Your task to perform on an android device: check data usage Image 0: 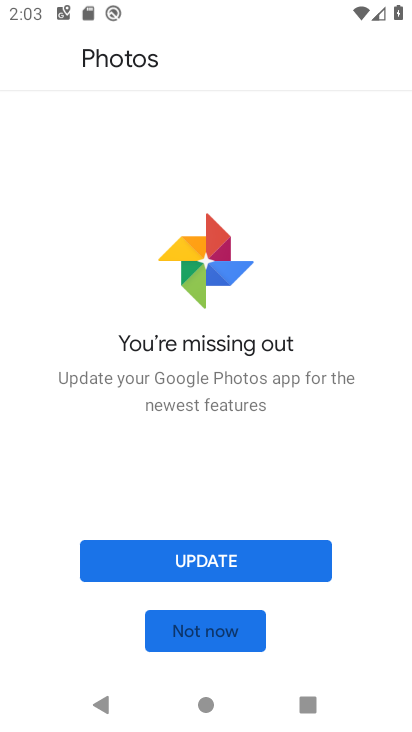
Step 0: press home button
Your task to perform on an android device: check data usage Image 1: 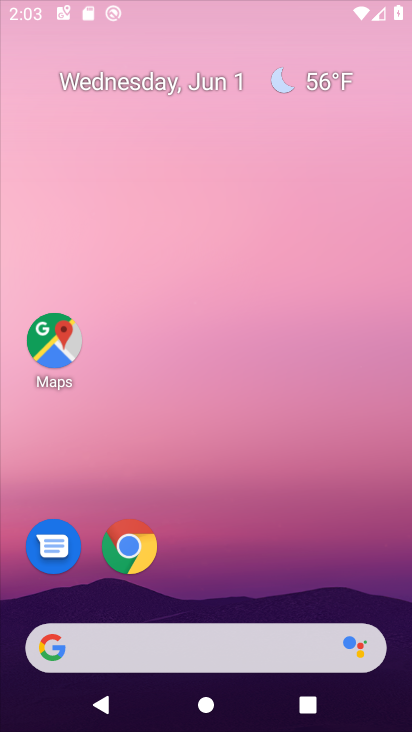
Step 1: drag from (182, 677) to (235, 126)
Your task to perform on an android device: check data usage Image 2: 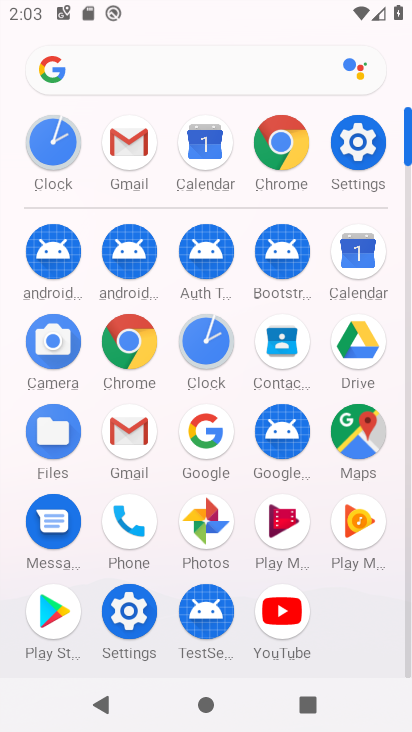
Step 2: click (364, 157)
Your task to perform on an android device: check data usage Image 3: 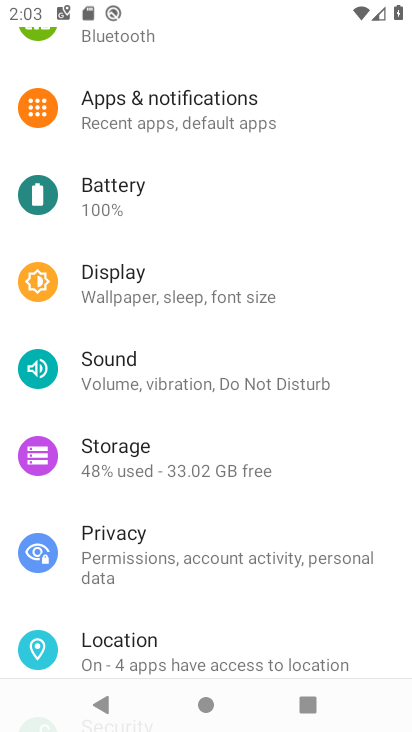
Step 3: drag from (253, 71) to (269, 492)
Your task to perform on an android device: check data usage Image 4: 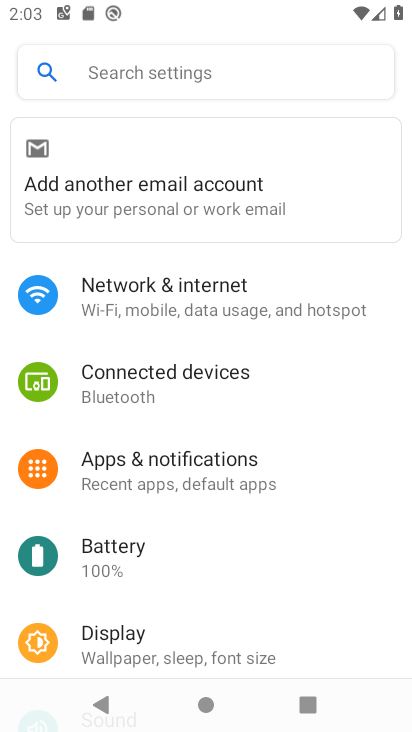
Step 4: click (165, 318)
Your task to perform on an android device: check data usage Image 5: 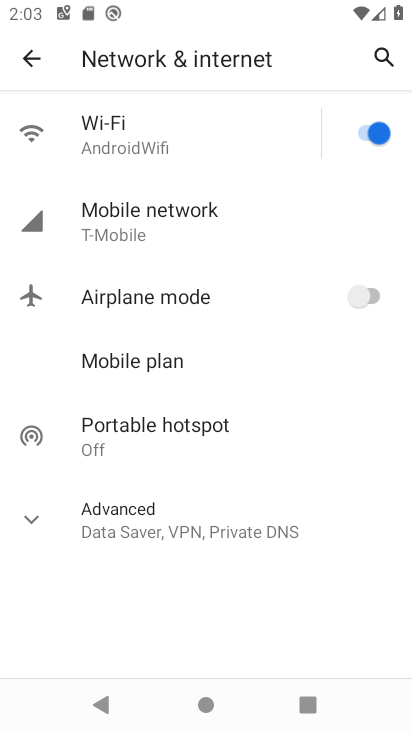
Step 5: click (165, 234)
Your task to perform on an android device: check data usage Image 6: 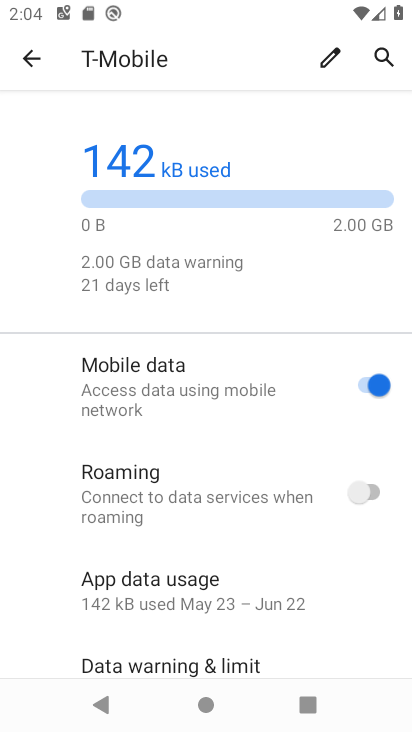
Step 6: click (179, 603)
Your task to perform on an android device: check data usage Image 7: 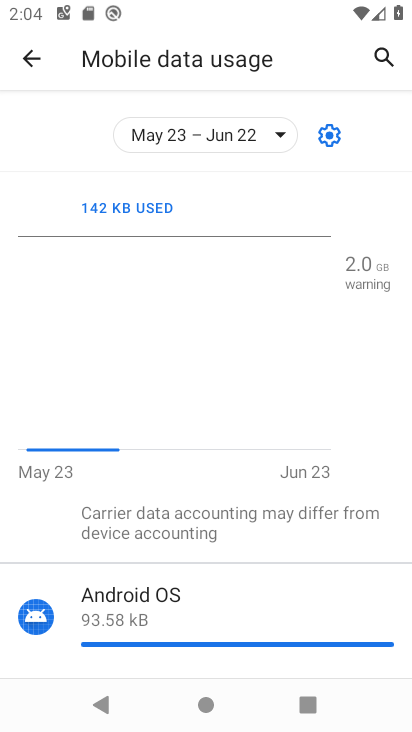
Step 7: task complete